Your task to perform on an android device: delete a single message in the gmail app Image 0: 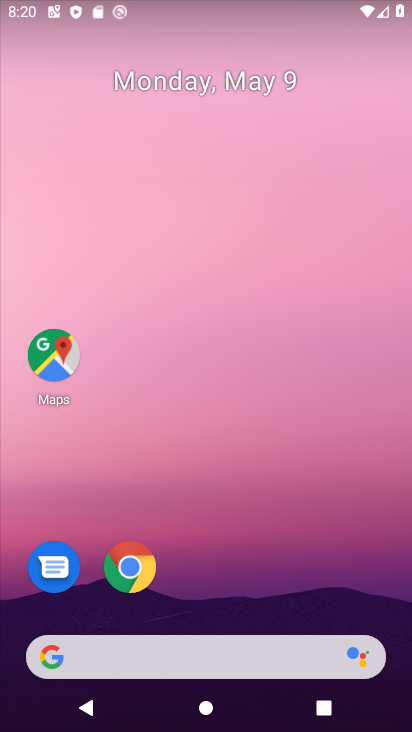
Step 0: press home button
Your task to perform on an android device: delete a single message in the gmail app Image 1: 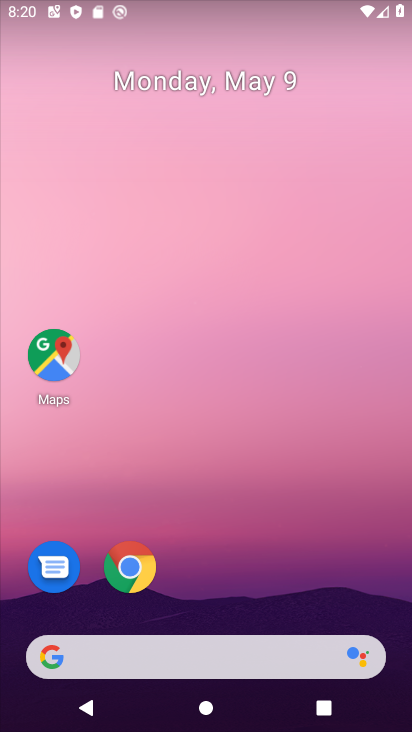
Step 1: drag from (360, 572) to (359, 104)
Your task to perform on an android device: delete a single message in the gmail app Image 2: 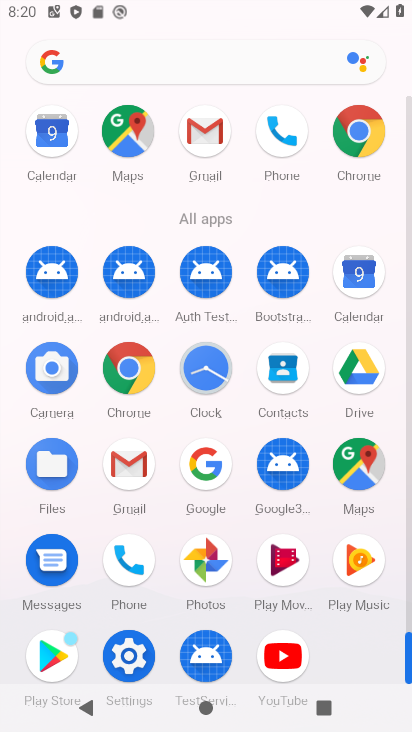
Step 2: click (99, 475)
Your task to perform on an android device: delete a single message in the gmail app Image 3: 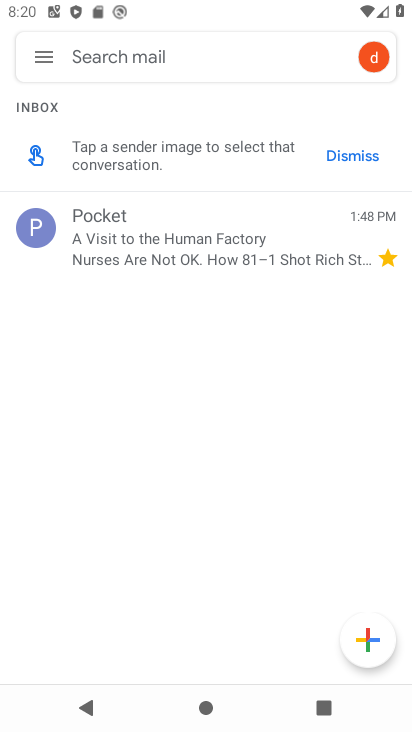
Step 3: click (238, 225)
Your task to perform on an android device: delete a single message in the gmail app Image 4: 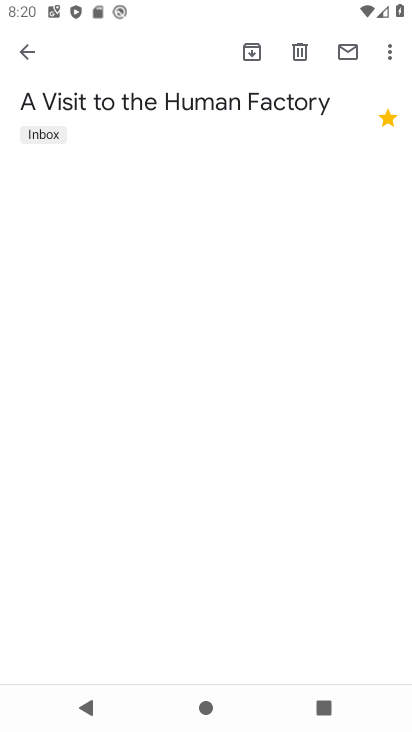
Step 4: click (297, 60)
Your task to perform on an android device: delete a single message in the gmail app Image 5: 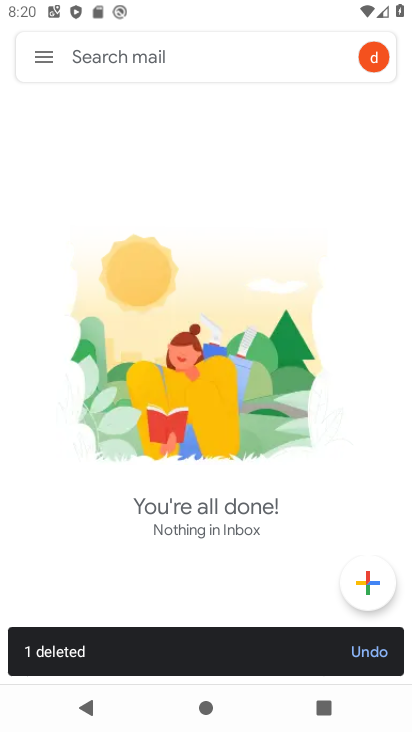
Step 5: task complete